Your task to perform on an android device: Open Amazon Image 0: 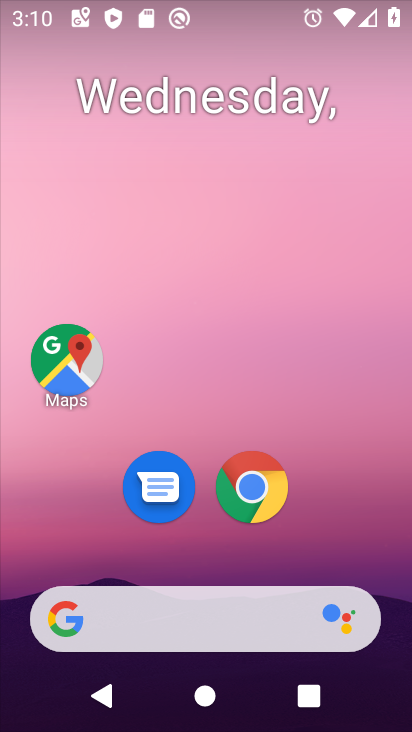
Step 0: drag from (363, 528) to (373, 131)
Your task to perform on an android device: Open Amazon Image 1: 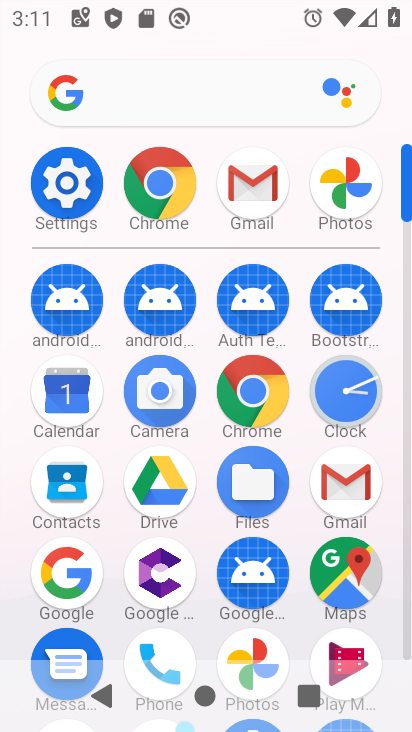
Step 1: click (245, 400)
Your task to perform on an android device: Open Amazon Image 2: 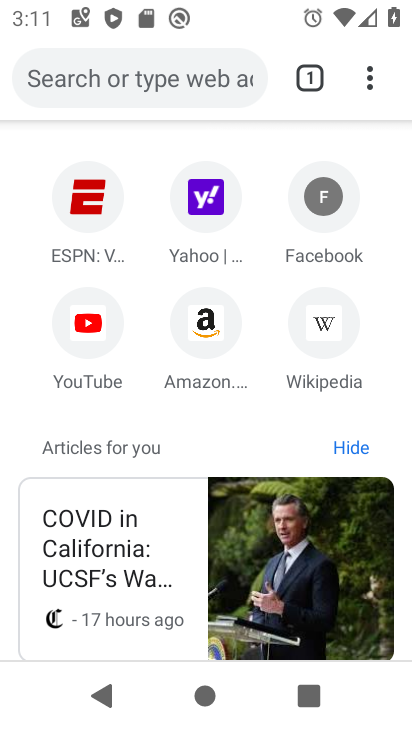
Step 2: click (208, 84)
Your task to perform on an android device: Open Amazon Image 3: 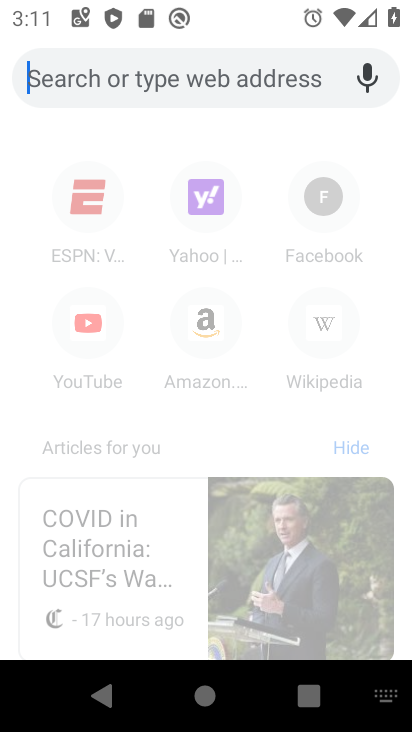
Step 3: type "amazon"
Your task to perform on an android device: Open Amazon Image 4: 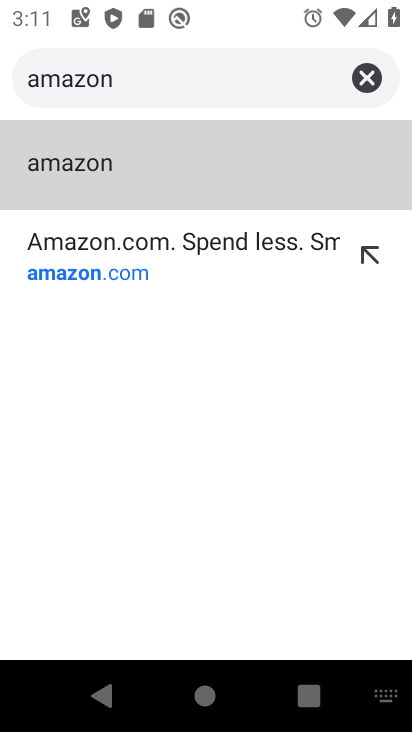
Step 4: click (93, 176)
Your task to perform on an android device: Open Amazon Image 5: 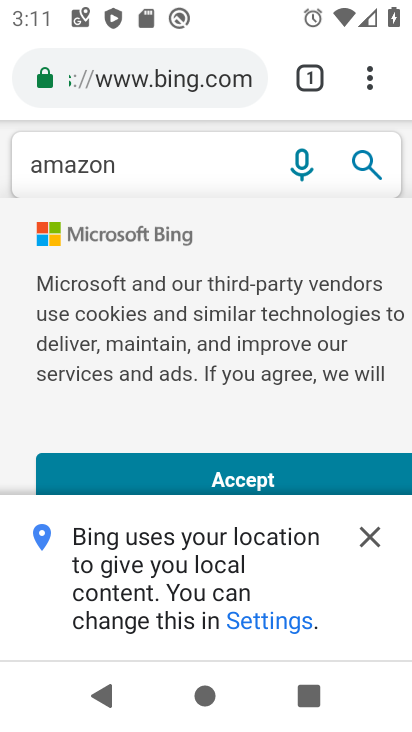
Step 5: task complete